Your task to perform on an android device: What's the weather today? Image 0: 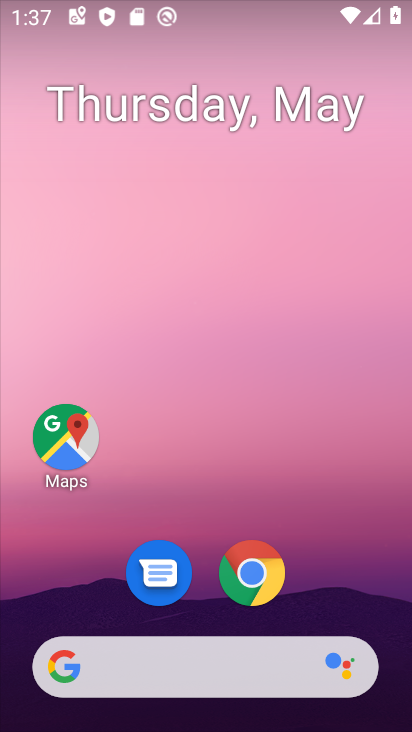
Step 0: drag from (21, 307) to (398, 241)
Your task to perform on an android device: What's the weather today? Image 1: 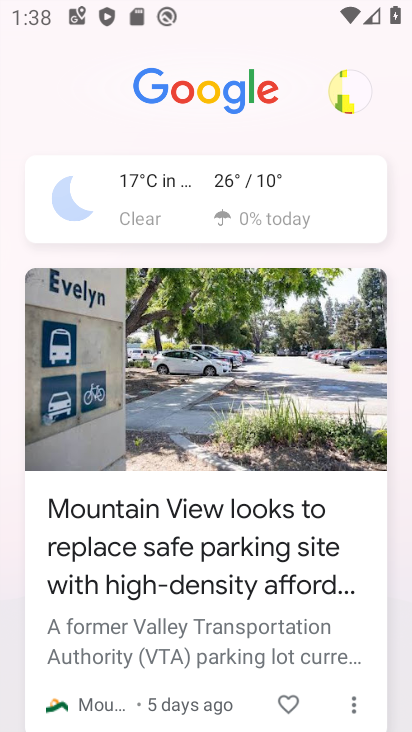
Step 1: click (129, 202)
Your task to perform on an android device: What's the weather today? Image 2: 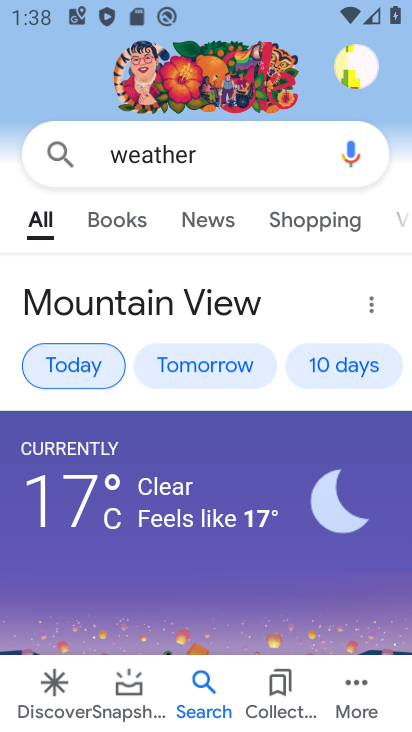
Step 2: task complete